Your task to perform on an android device: install app "Google Duo" Image 0: 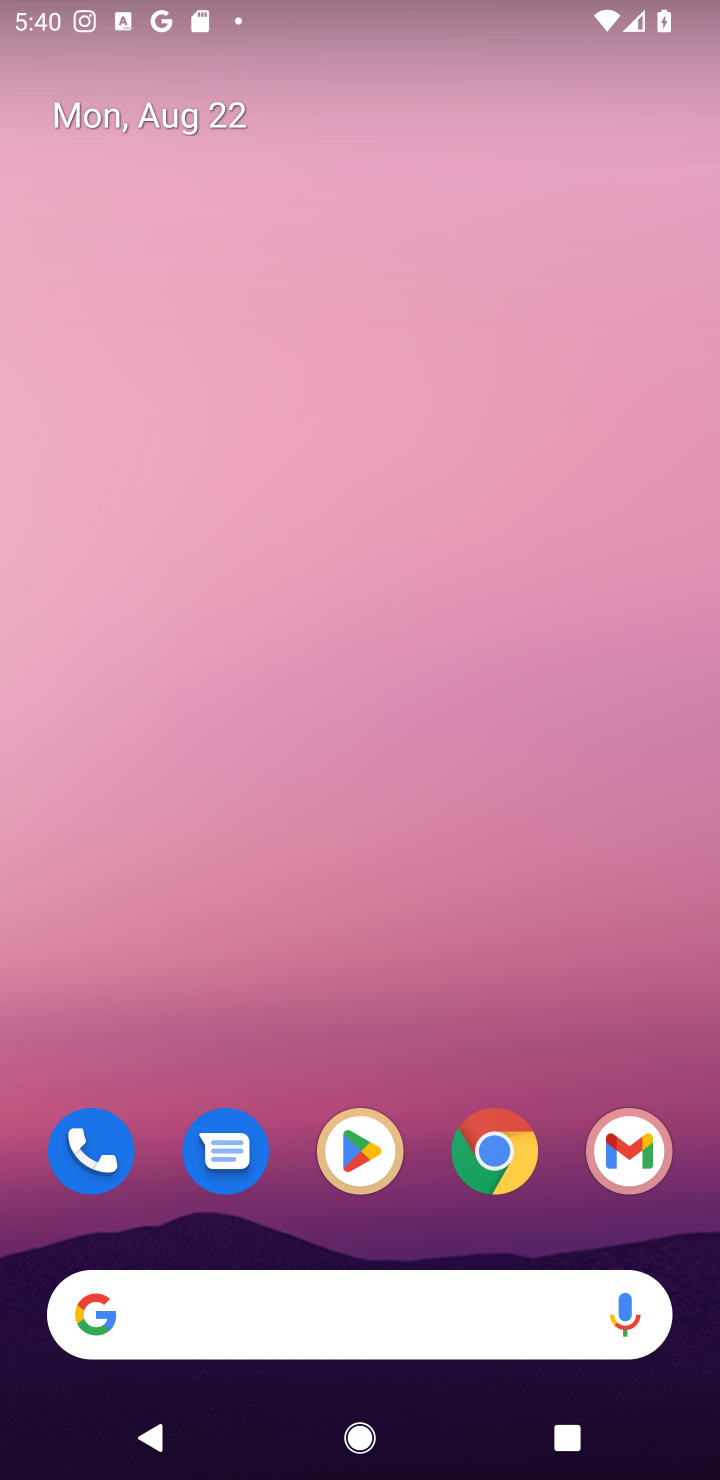
Step 0: press home button
Your task to perform on an android device: install app "Google Duo" Image 1: 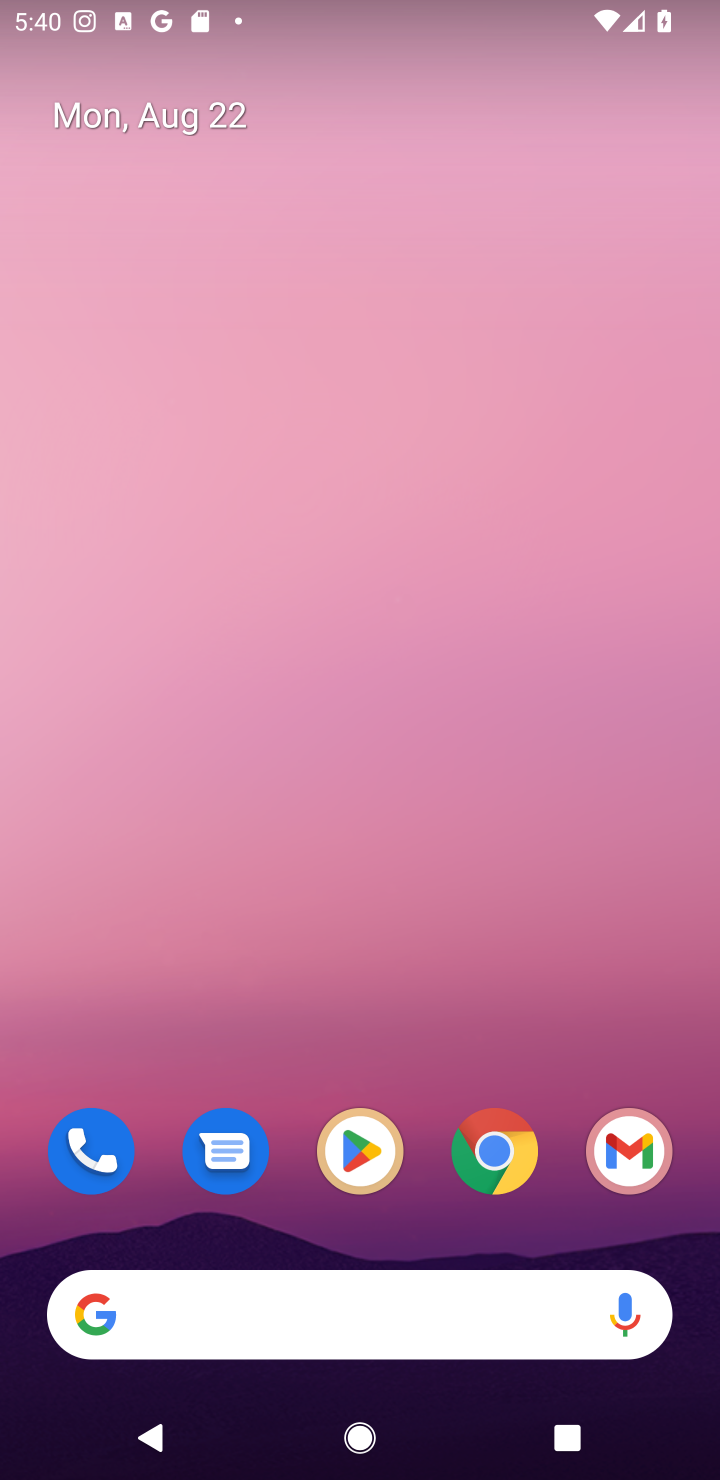
Step 1: click (363, 1144)
Your task to perform on an android device: install app "Google Duo" Image 2: 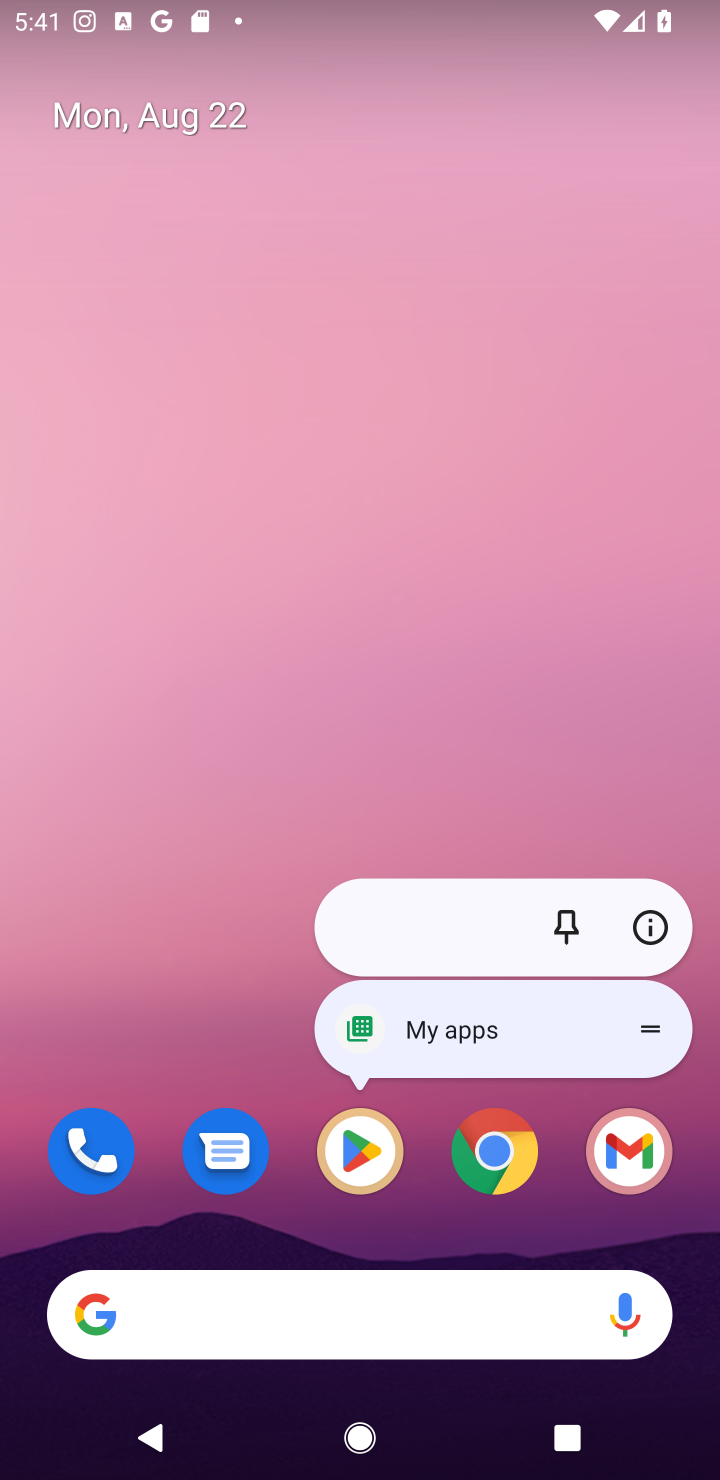
Step 2: click (361, 1151)
Your task to perform on an android device: install app "Google Duo" Image 3: 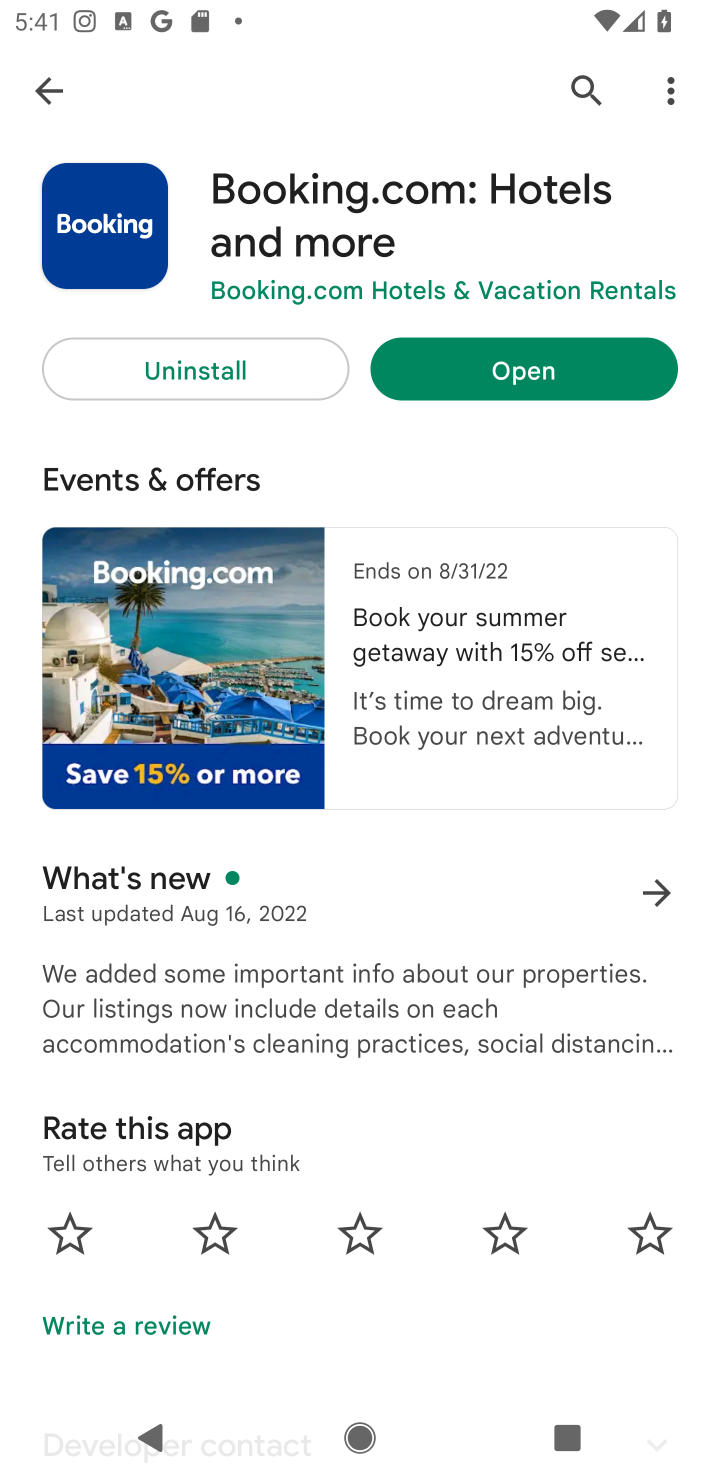
Step 3: click (568, 76)
Your task to perform on an android device: install app "Google Duo" Image 4: 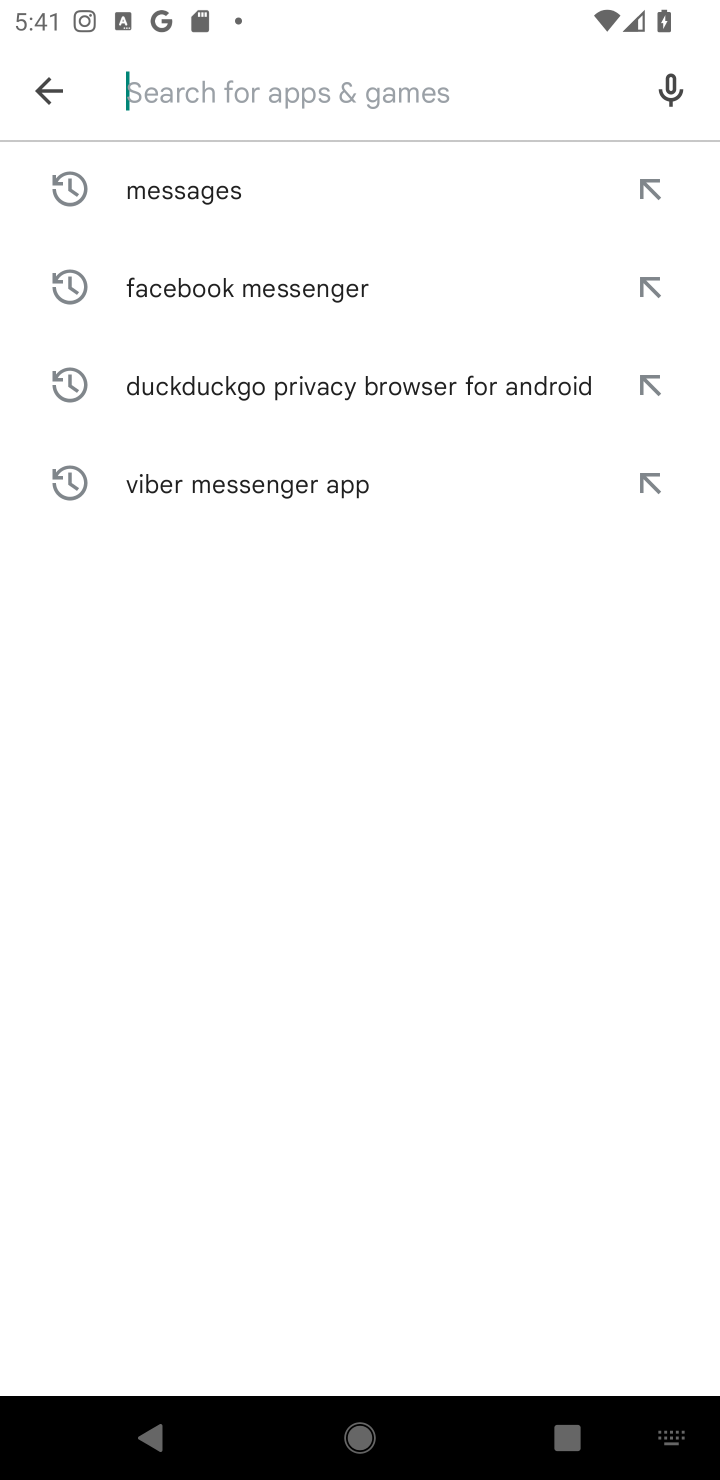
Step 4: type "Google Duo"
Your task to perform on an android device: install app "Google Duo" Image 5: 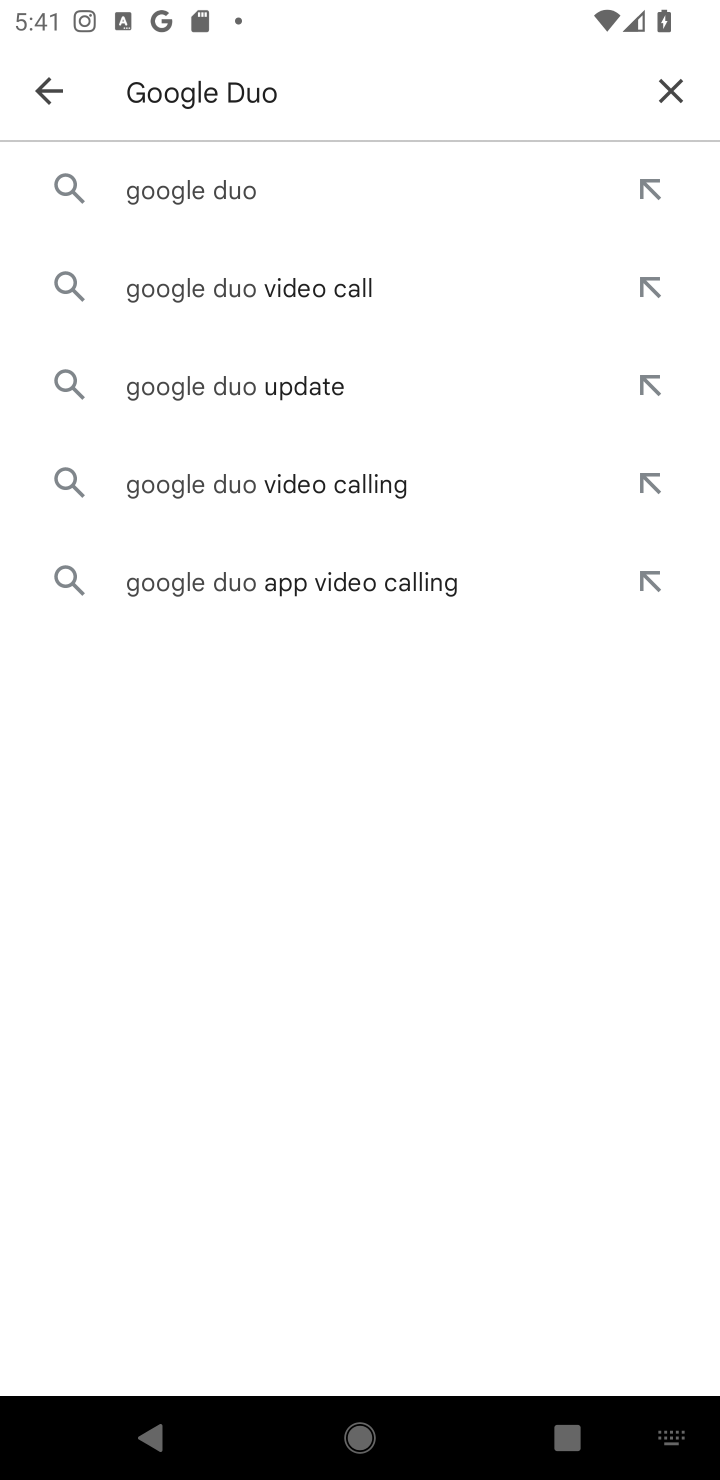
Step 5: click (202, 192)
Your task to perform on an android device: install app "Google Duo" Image 6: 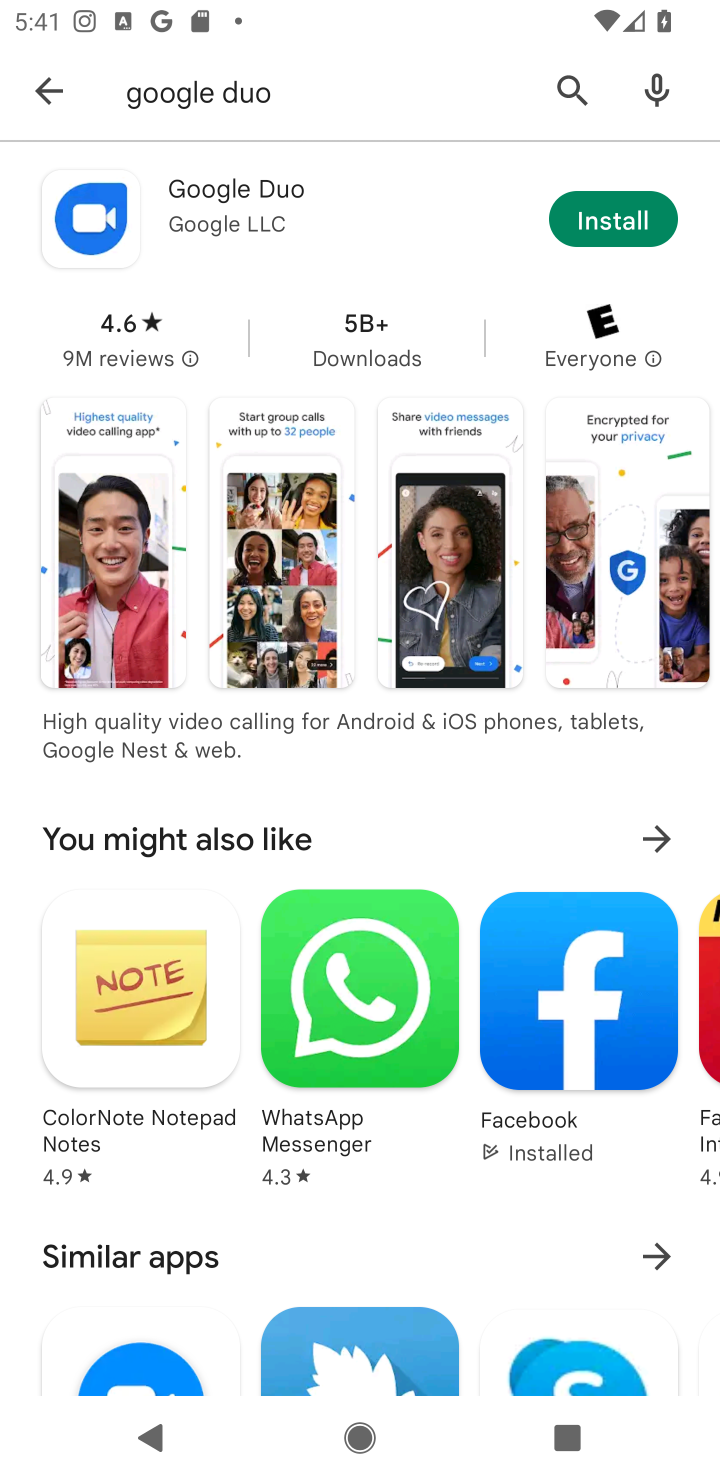
Step 6: click (587, 221)
Your task to perform on an android device: install app "Google Duo" Image 7: 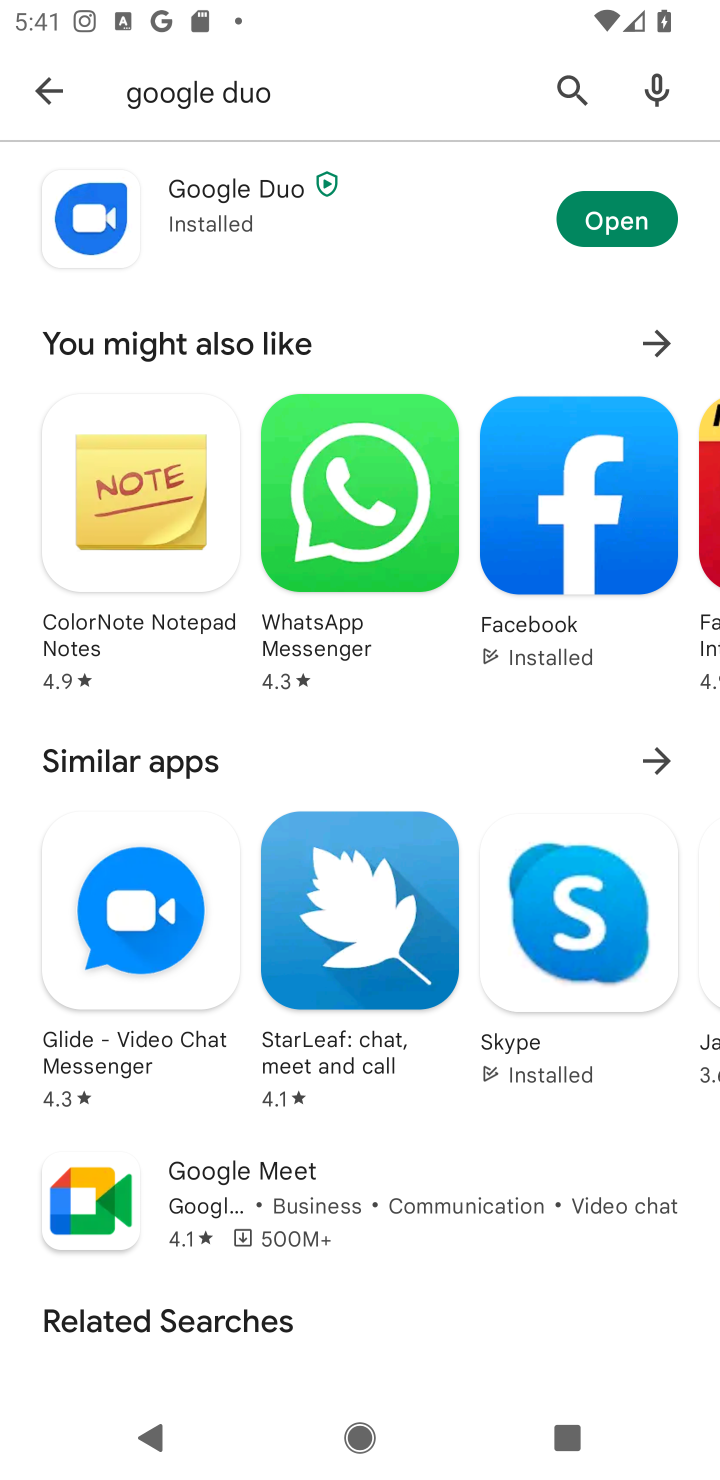
Step 7: task complete